Your task to perform on an android device: Open Yahoo.com Image 0: 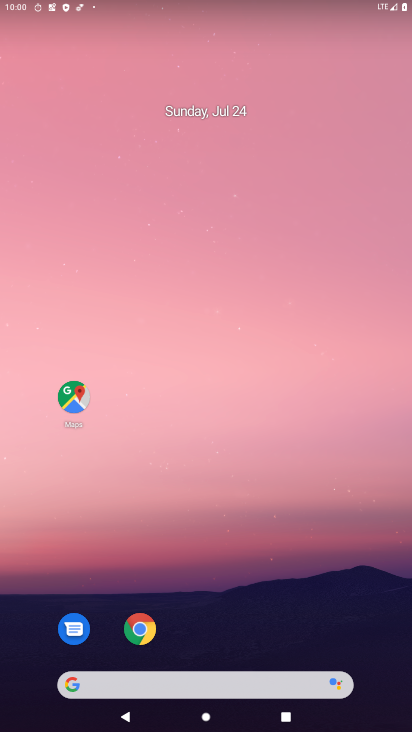
Step 0: press home button
Your task to perform on an android device: Open Yahoo.com Image 1: 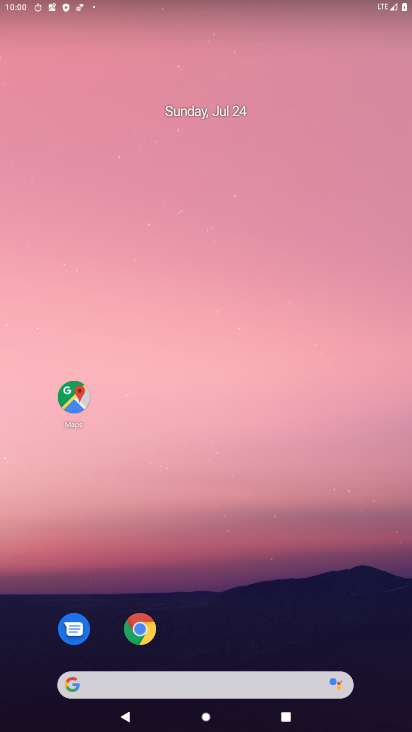
Step 1: click (67, 689)
Your task to perform on an android device: Open Yahoo.com Image 2: 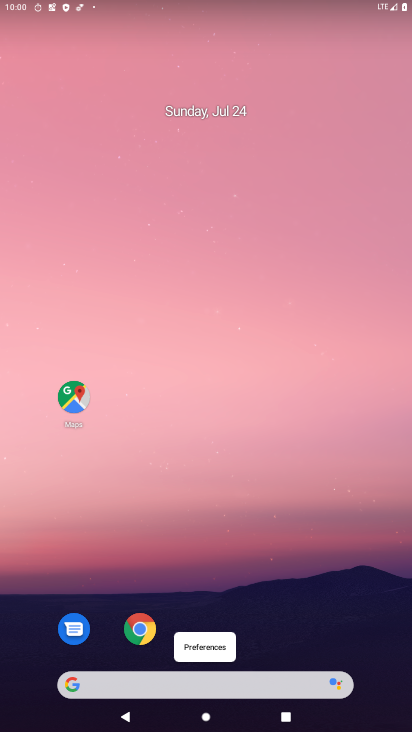
Step 2: click (72, 682)
Your task to perform on an android device: Open Yahoo.com Image 3: 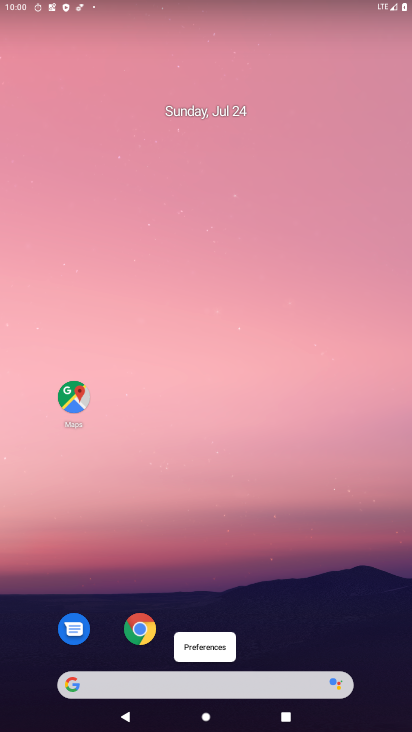
Step 3: click (72, 682)
Your task to perform on an android device: Open Yahoo.com Image 4: 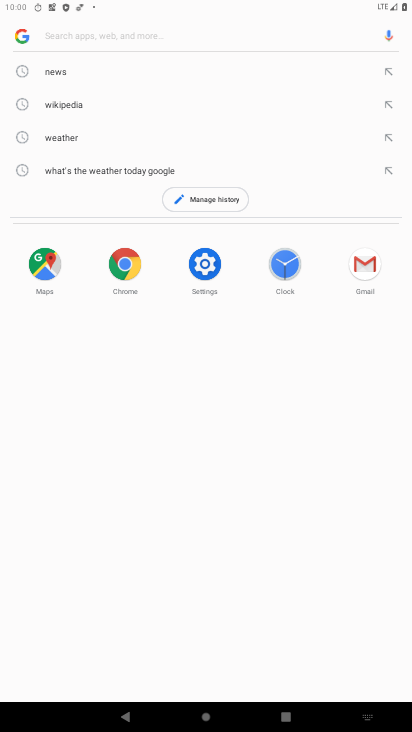
Step 4: type "Yahoo.com"
Your task to perform on an android device: Open Yahoo.com Image 5: 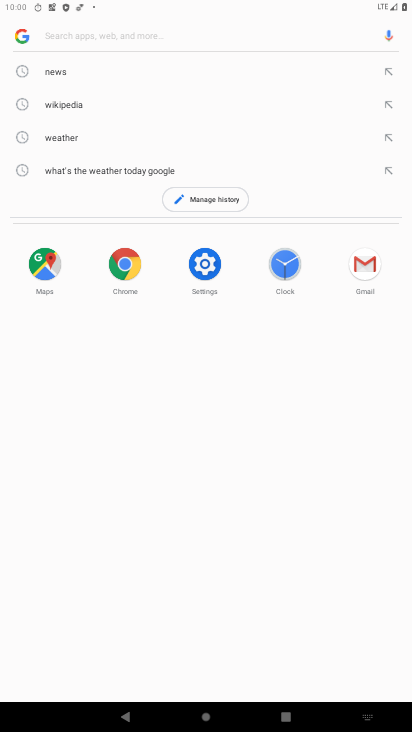
Step 5: click (55, 34)
Your task to perform on an android device: Open Yahoo.com Image 6: 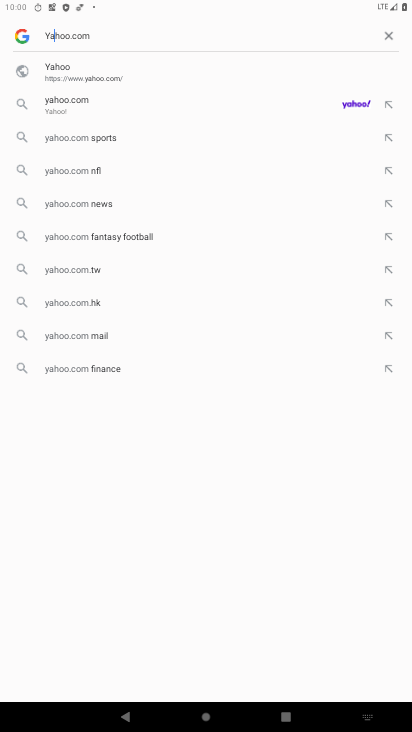
Step 6: press enter
Your task to perform on an android device: Open Yahoo.com Image 7: 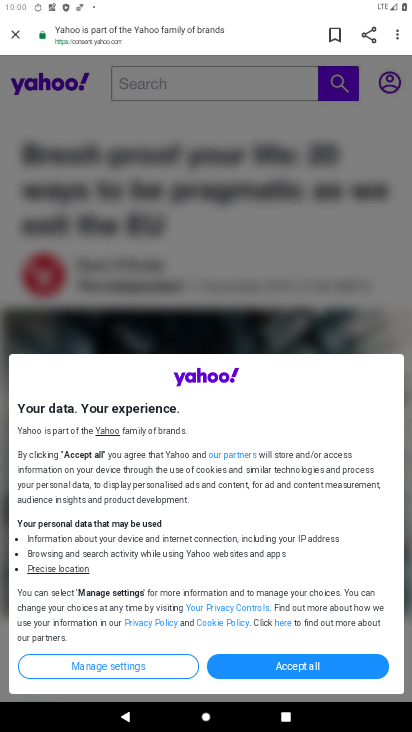
Step 7: click (297, 660)
Your task to perform on an android device: Open Yahoo.com Image 8: 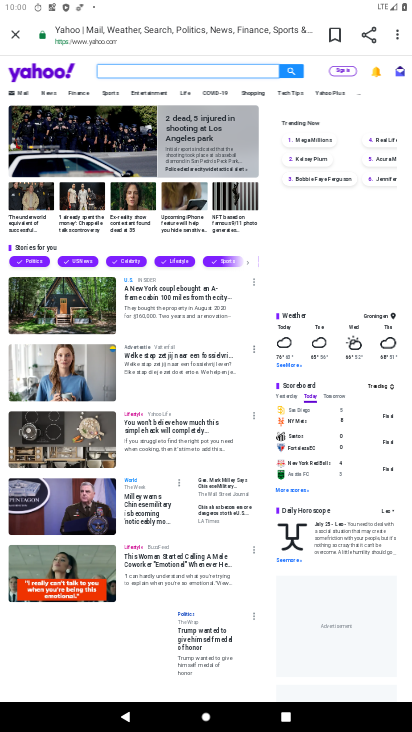
Step 8: task complete